Your task to perform on an android device: turn on airplane mode Image 0: 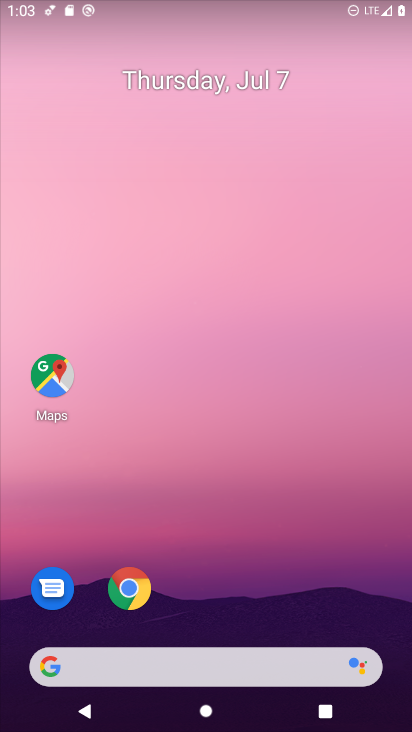
Step 0: drag from (258, 576) to (280, 0)
Your task to perform on an android device: turn on airplane mode Image 1: 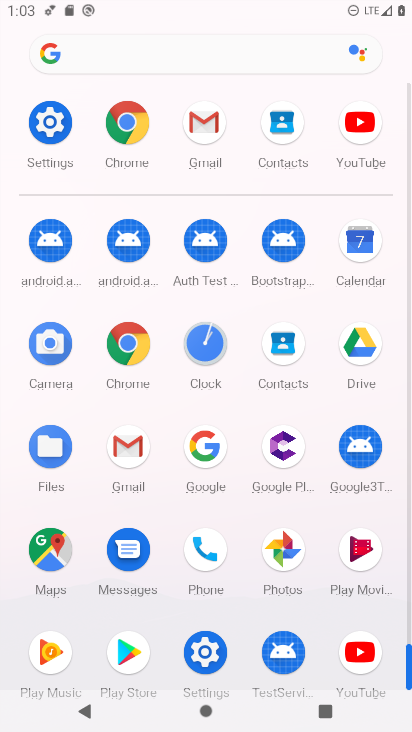
Step 1: drag from (170, 7) to (169, 594)
Your task to perform on an android device: turn on airplane mode Image 2: 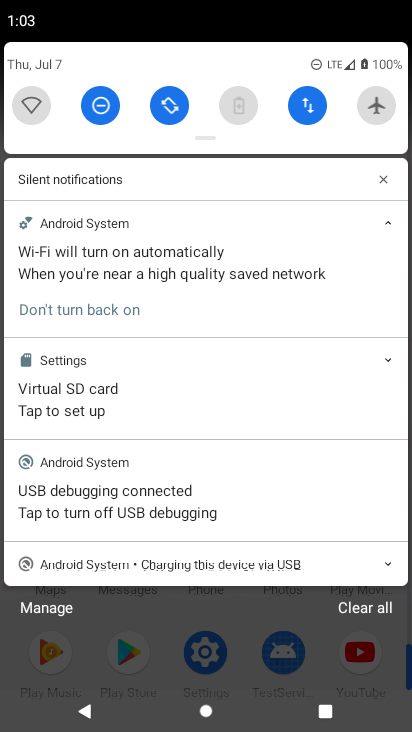
Step 2: drag from (278, 147) to (260, 617)
Your task to perform on an android device: turn on airplane mode Image 3: 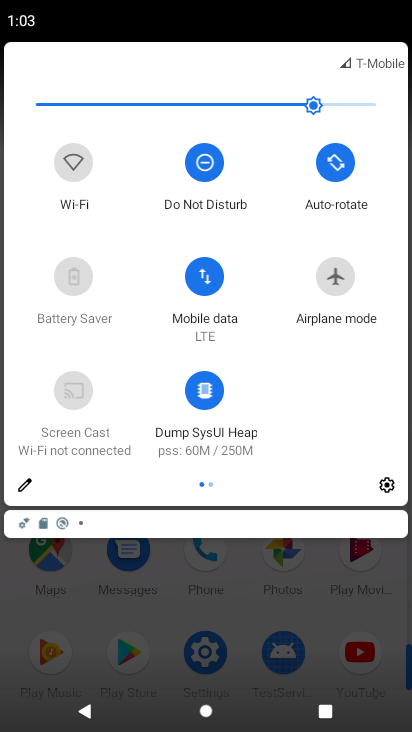
Step 3: click (331, 267)
Your task to perform on an android device: turn on airplane mode Image 4: 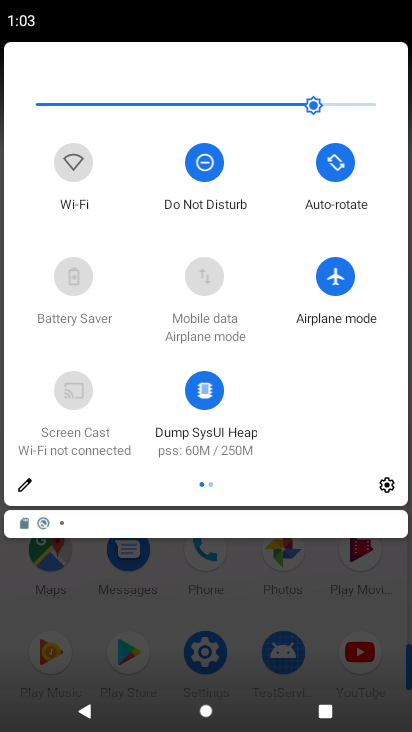
Step 4: task complete